Your task to perform on an android device: Search for razer naga on bestbuy, select the first entry, and add it to the cart. Image 0: 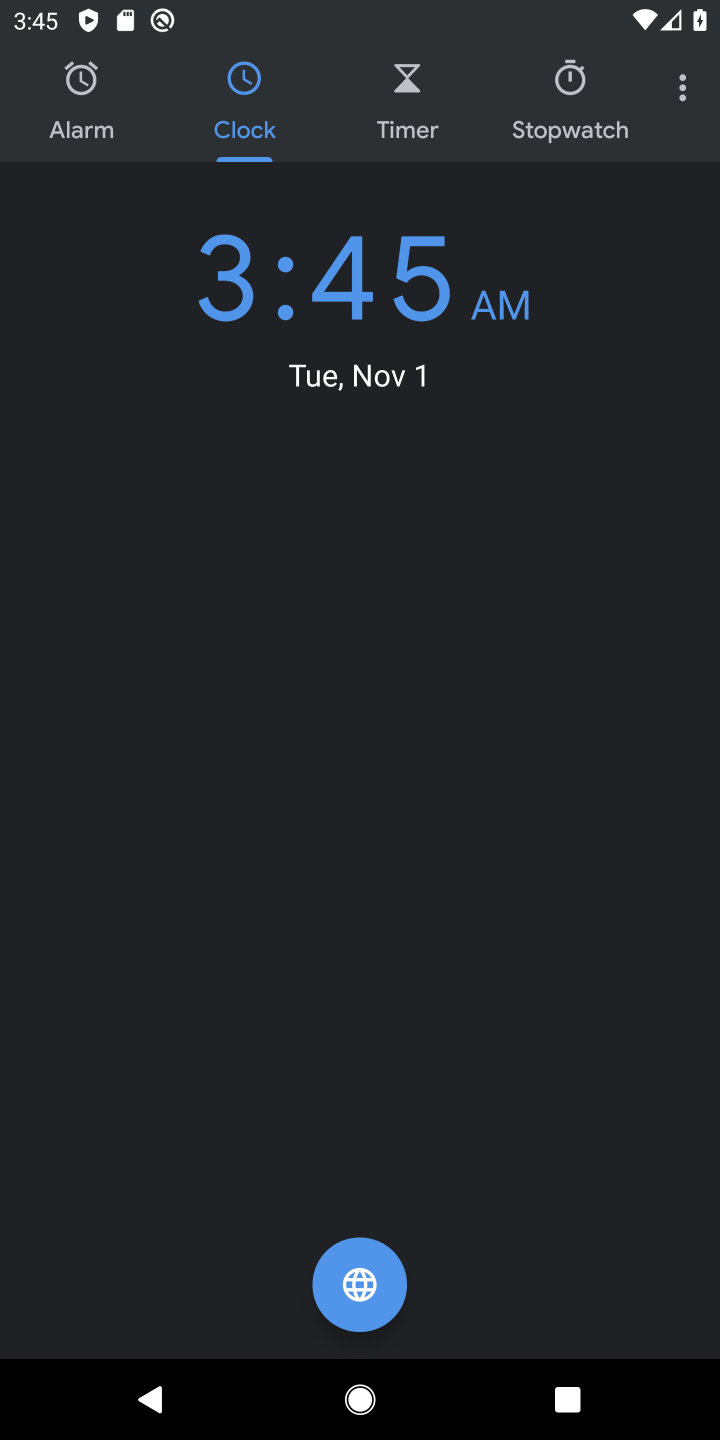
Step 0: task complete